Your task to perform on an android device: Turn off the flashlight Image 0: 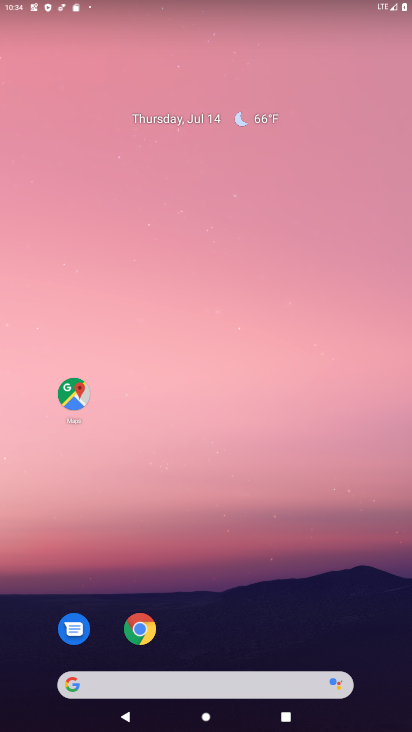
Step 0: drag from (172, 3) to (178, 223)
Your task to perform on an android device: Turn off the flashlight Image 1: 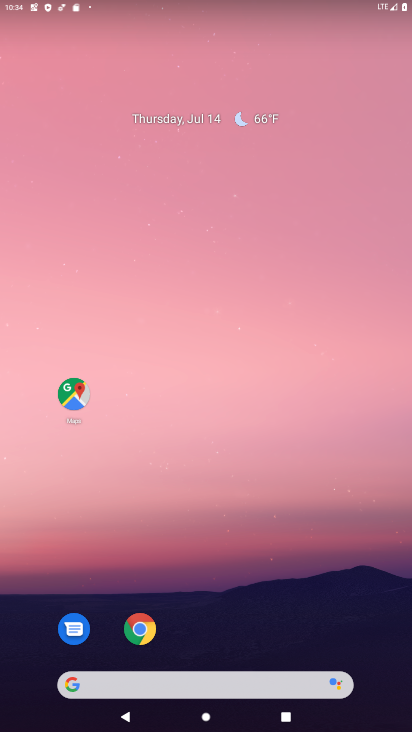
Step 1: task complete